Your task to perform on an android device: What is the news today? Image 0: 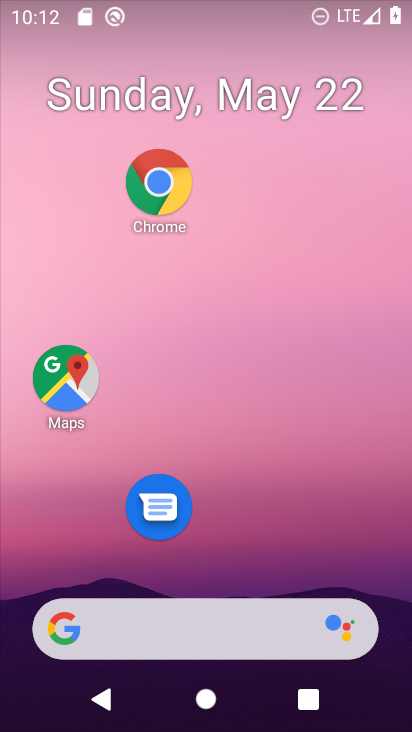
Step 0: click (286, 634)
Your task to perform on an android device: What is the news today? Image 1: 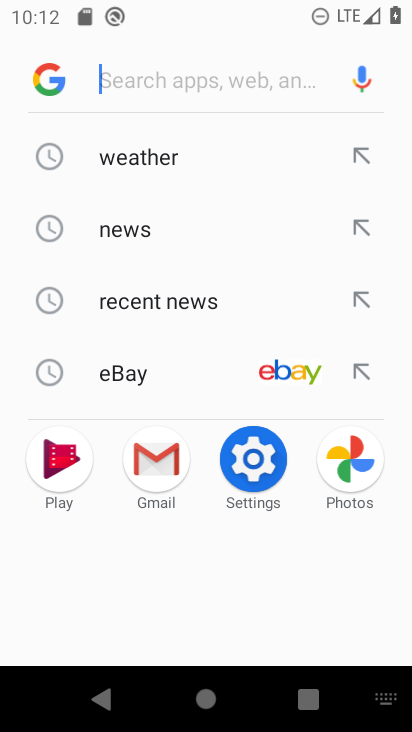
Step 1: type "What is the news today?"
Your task to perform on an android device: What is the news today? Image 2: 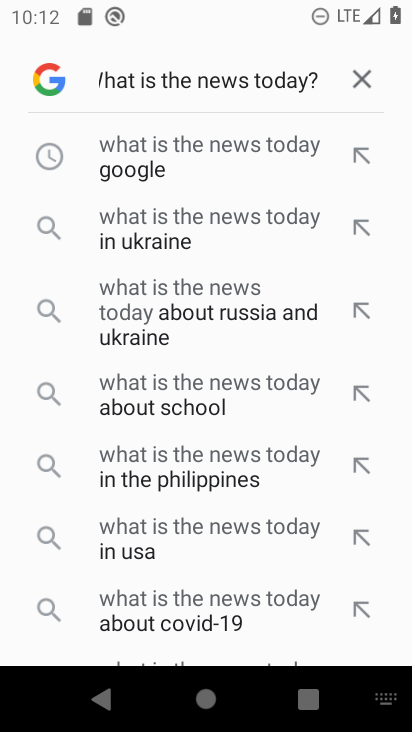
Step 2: click (263, 139)
Your task to perform on an android device: What is the news today? Image 3: 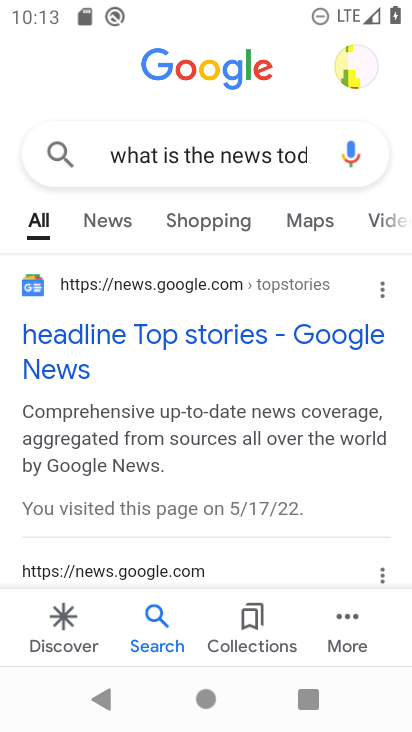
Step 3: task complete